Your task to perform on an android device: turn smart compose on in the gmail app Image 0: 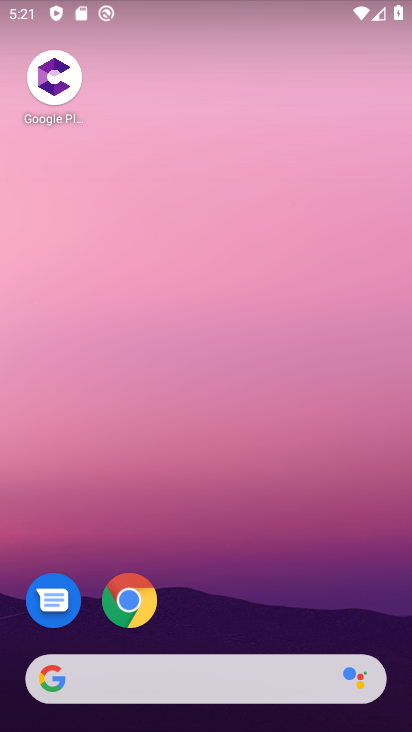
Step 0: drag from (238, 622) to (266, 249)
Your task to perform on an android device: turn smart compose on in the gmail app Image 1: 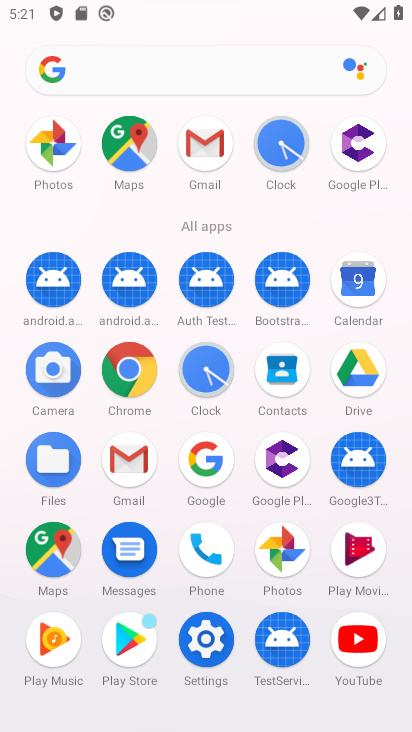
Step 1: click (118, 460)
Your task to perform on an android device: turn smart compose on in the gmail app Image 2: 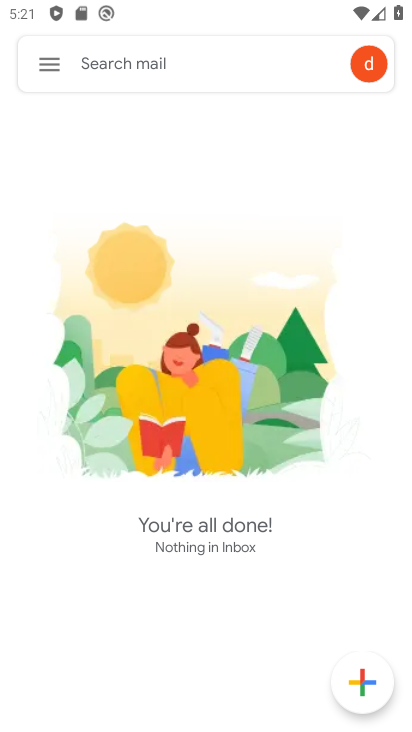
Step 2: click (52, 71)
Your task to perform on an android device: turn smart compose on in the gmail app Image 3: 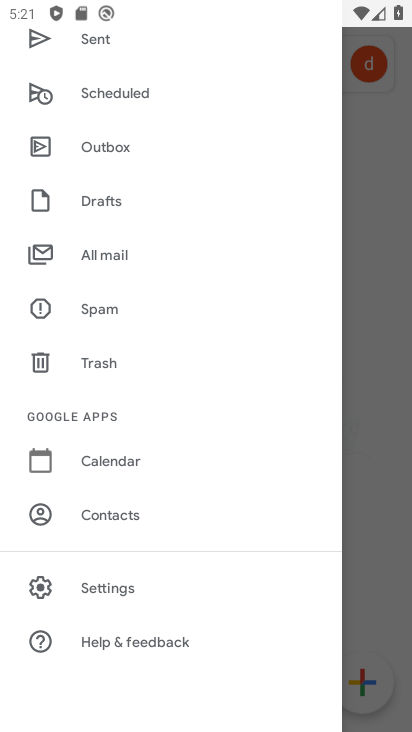
Step 3: click (112, 586)
Your task to perform on an android device: turn smart compose on in the gmail app Image 4: 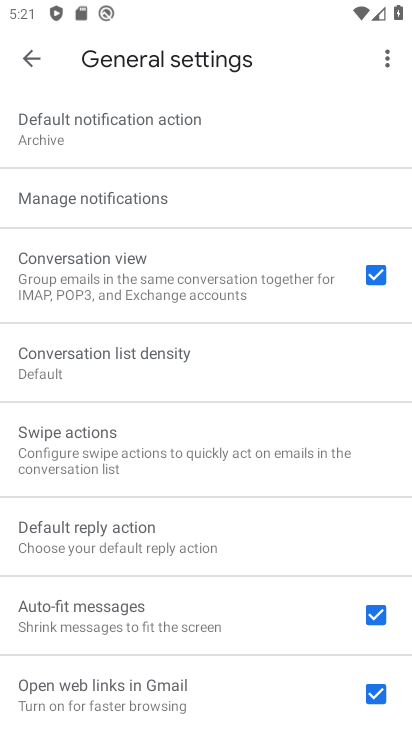
Step 4: click (34, 56)
Your task to perform on an android device: turn smart compose on in the gmail app Image 5: 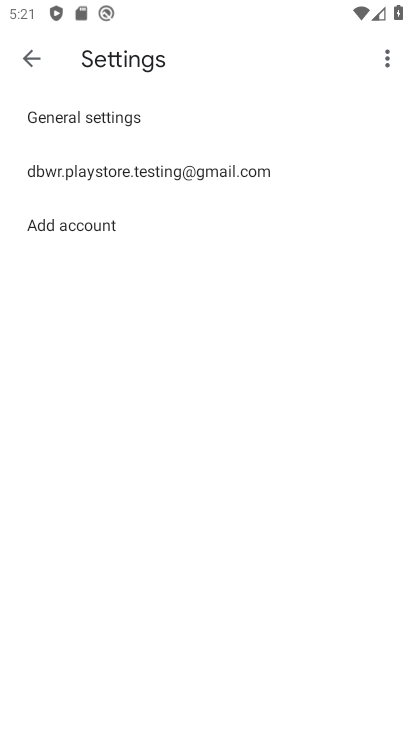
Step 5: click (183, 173)
Your task to perform on an android device: turn smart compose on in the gmail app Image 6: 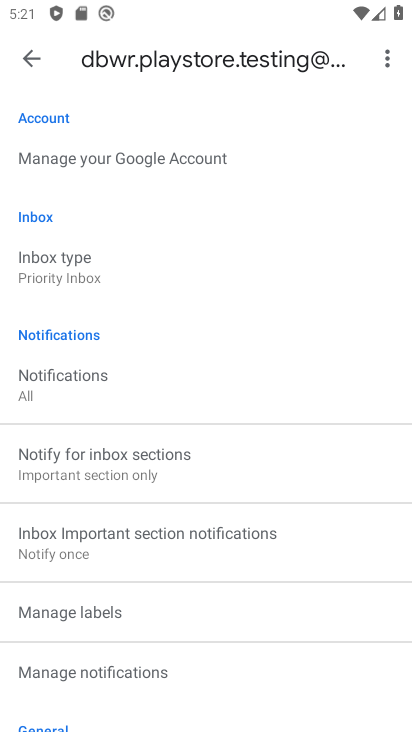
Step 6: task complete